Your task to perform on an android device: turn pop-ups off in chrome Image 0: 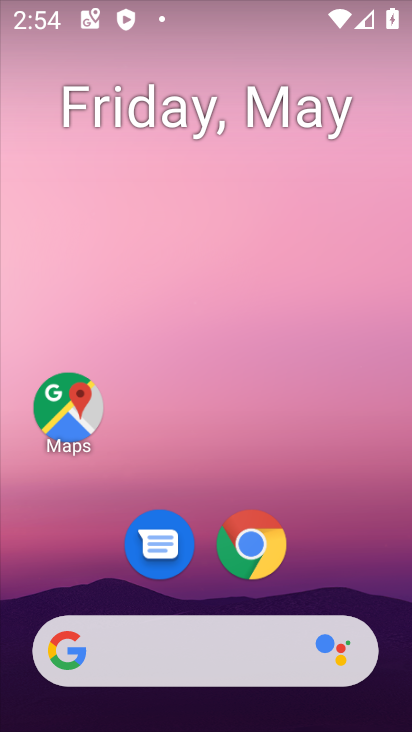
Step 0: click (227, 552)
Your task to perform on an android device: turn pop-ups off in chrome Image 1: 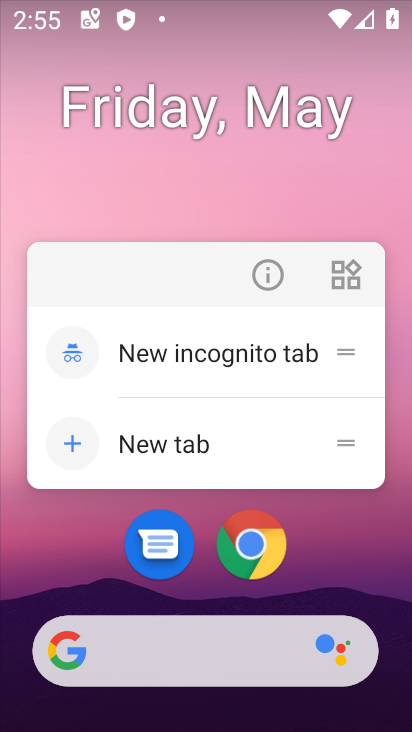
Step 1: click (256, 574)
Your task to perform on an android device: turn pop-ups off in chrome Image 2: 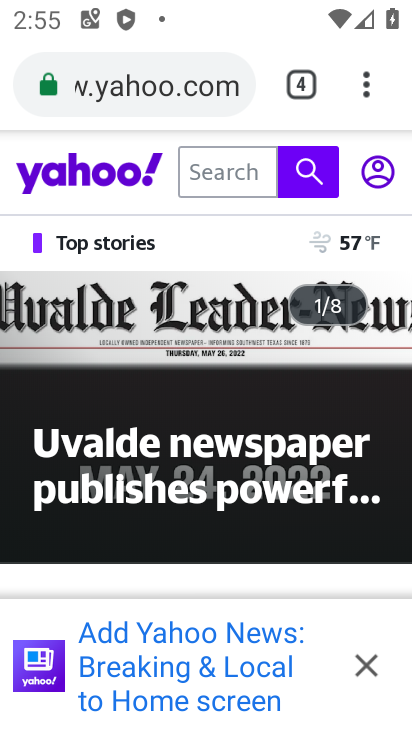
Step 2: click (364, 96)
Your task to perform on an android device: turn pop-ups off in chrome Image 3: 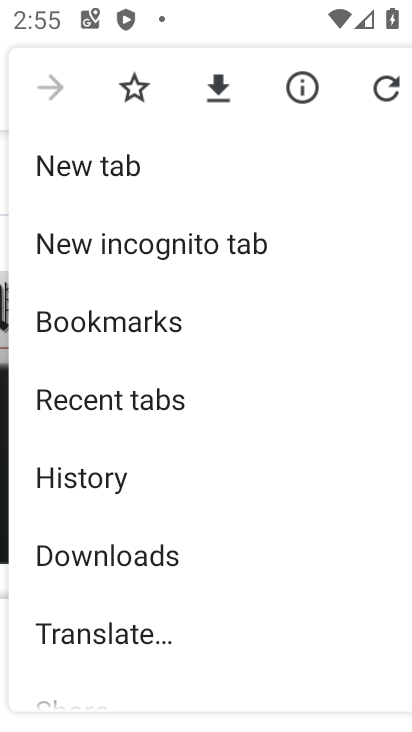
Step 3: drag from (250, 596) to (218, 337)
Your task to perform on an android device: turn pop-ups off in chrome Image 4: 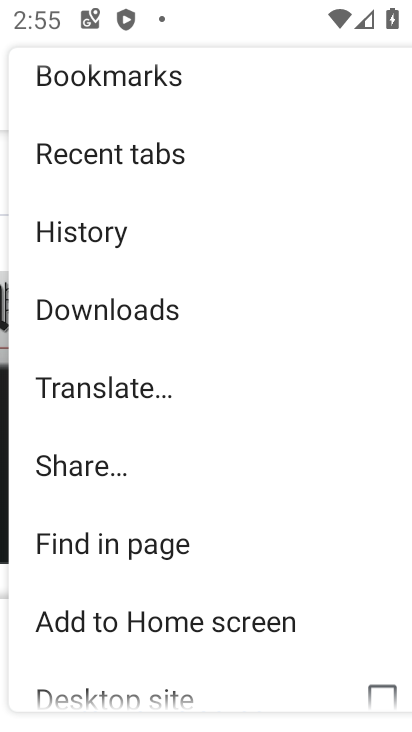
Step 4: drag from (231, 664) to (204, 393)
Your task to perform on an android device: turn pop-ups off in chrome Image 5: 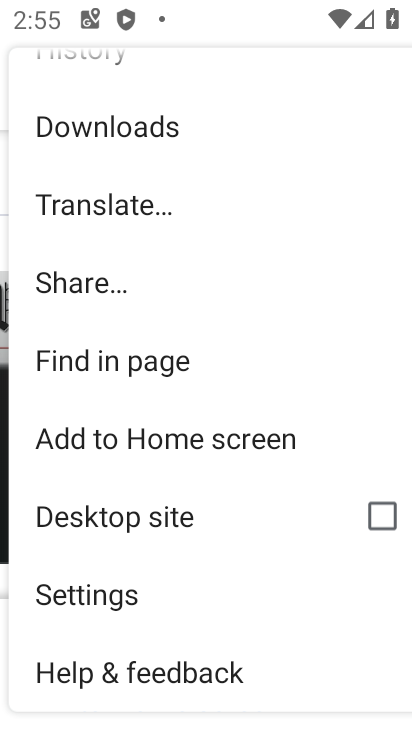
Step 5: click (180, 601)
Your task to perform on an android device: turn pop-ups off in chrome Image 6: 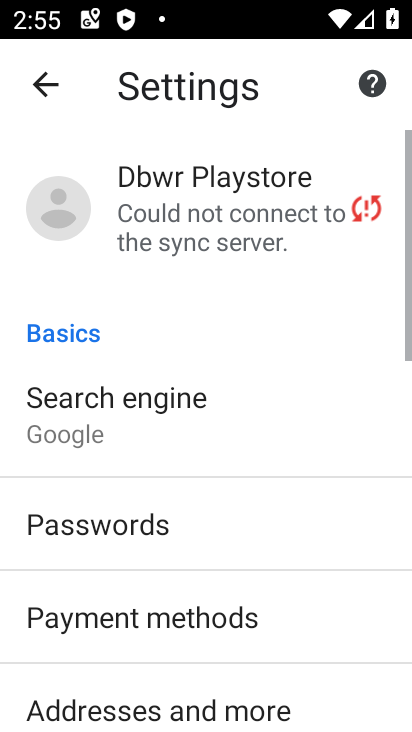
Step 6: drag from (185, 611) to (187, 249)
Your task to perform on an android device: turn pop-ups off in chrome Image 7: 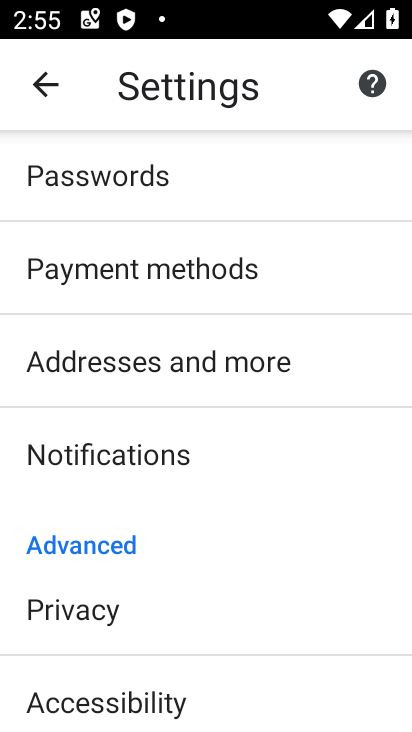
Step 7: drag from (217, 611) to (222, 360)
Your task to perform on an android device: turn pop-ups off in chrome Image 8: 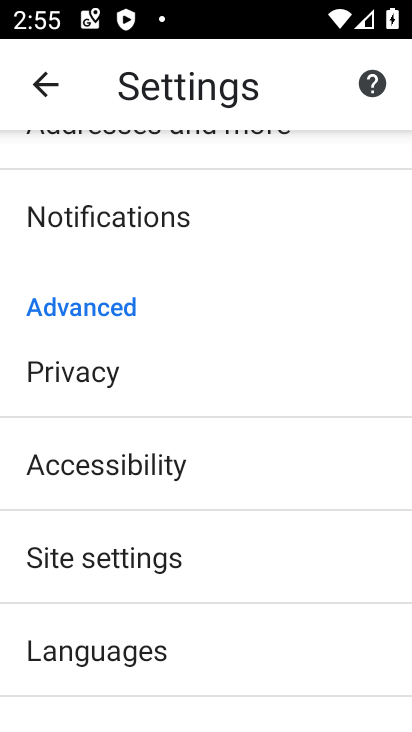
Step 8: drag from (211, 606) to (212, 337)
Your task to perform on an android device: turn pop-ups off in chrome Image 9: 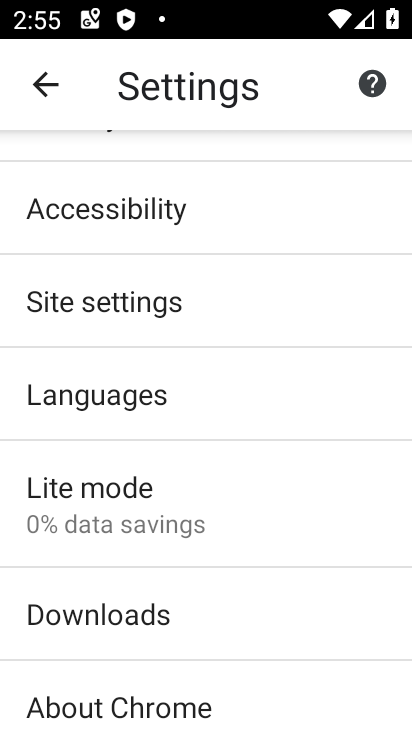
Step 9: click (156, 319)
Your task to perform on an android device: turn pop-ups off in chrome Image 10: 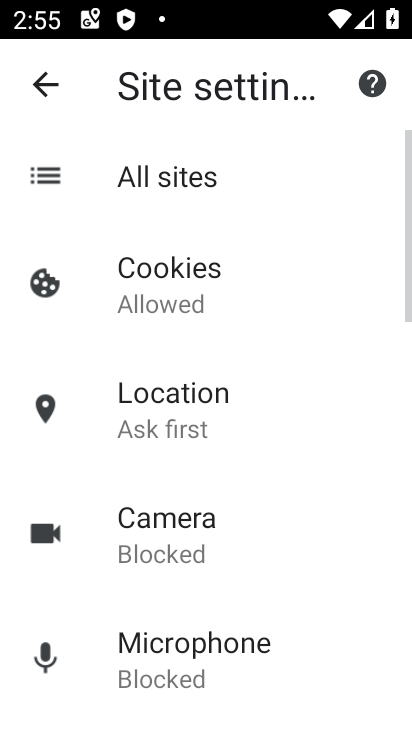
Step 10: drag from (210, 626) to (178, 331)
Your task to perform on an android device: turn pop-ups off in chrome Image 11: 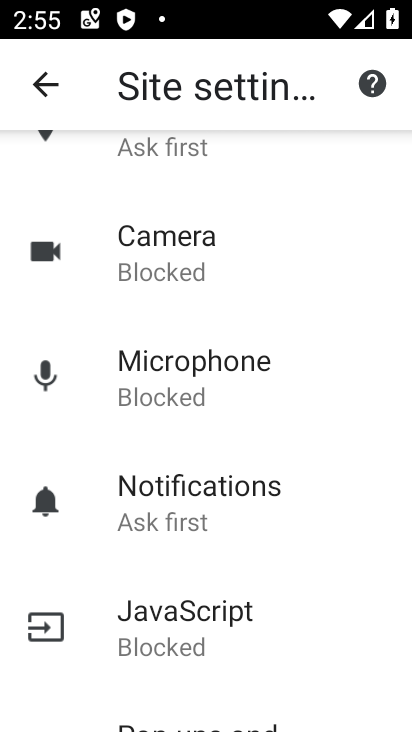
Step 11: drag from (264, 606) to (223, 324)
Your task to perform on an android device: turn pop-ups off in chrome Image 12: 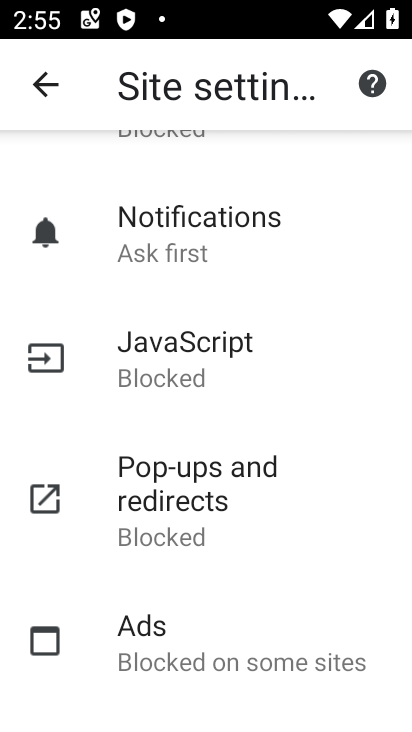
Step 12: click (243, 474)
Your task to perform on an android device: turn pop-ups off in chrome Image 13: 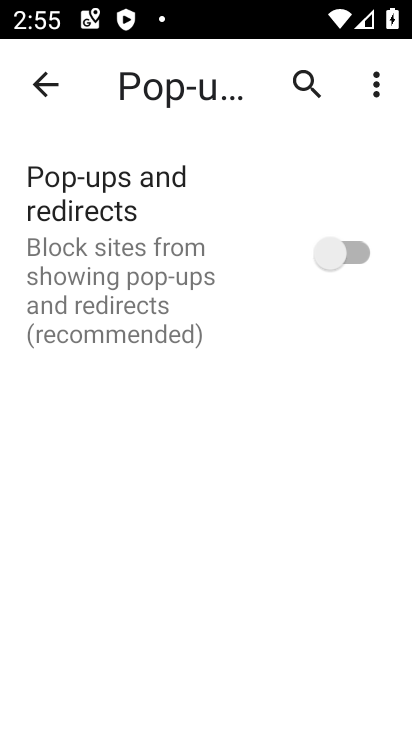
Step 13: task complete